Your task to perform on an android device: toggle pop-ups in chrome Image 0: 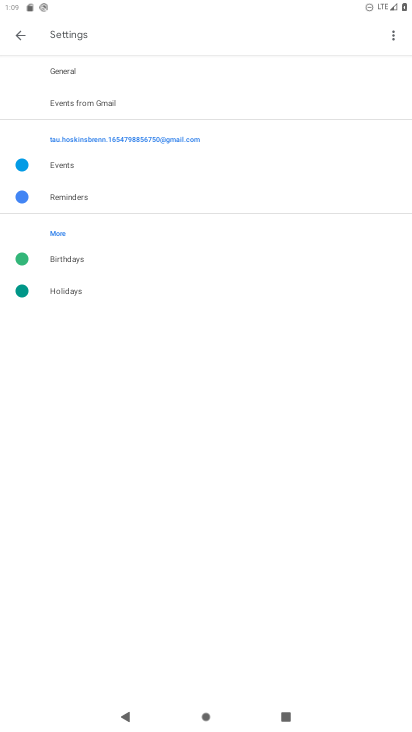
Step 0: press home button
Your task to perform on an android device: toggle pop-ups in chrome Image 1: 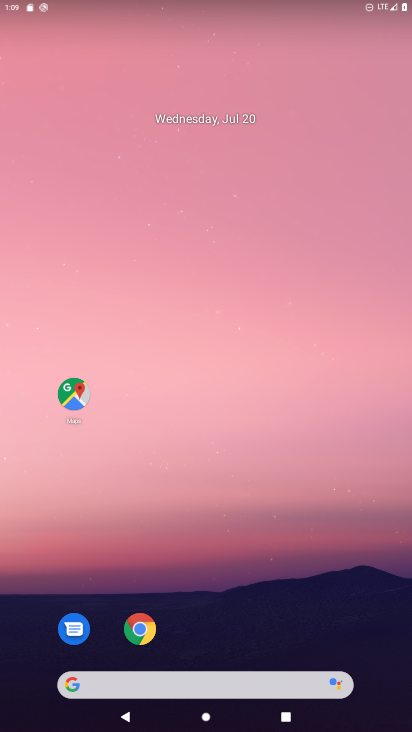
Step 1: click (132, 632)
Your task to perform on an android device: toggle pop-ups in chrome Image 2: 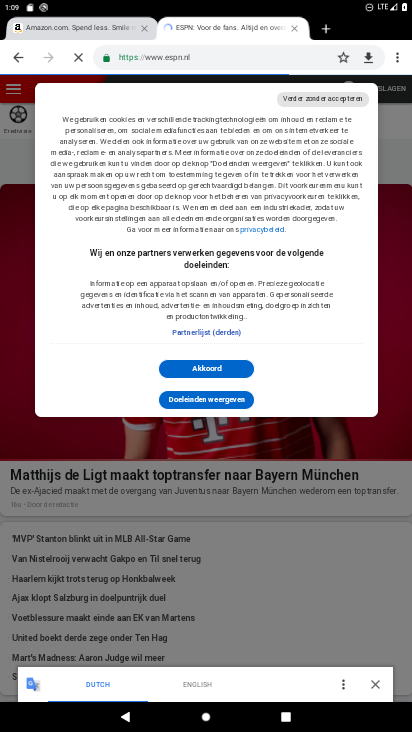
Step 2: click (396, 58)
Your task to perform on an android device: toggle pop-ups in chrome Image 3: 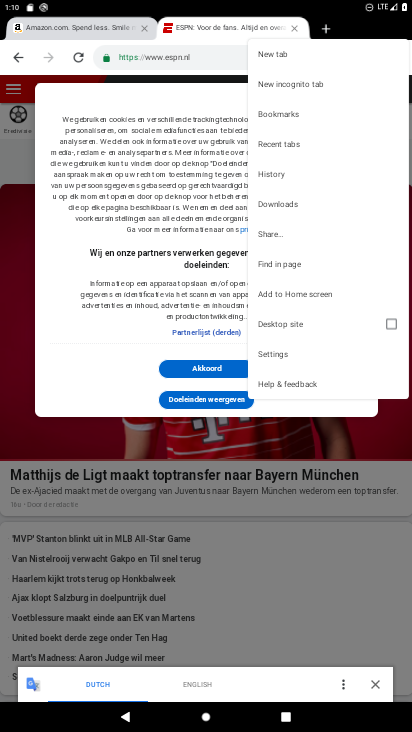
Step 3: click (266, 354)
Your task to perform on an android device: toggle pop-ups in chrome Image 4: 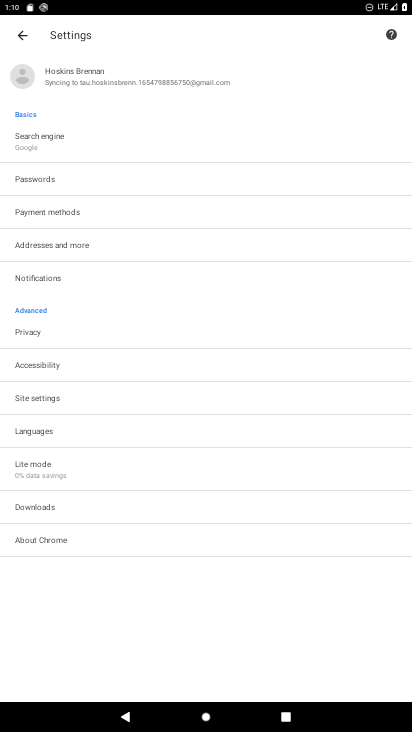
Step 4: click (51, 397)
Your task to perform on an android device: toggle pop-ups in chrome Image 5: 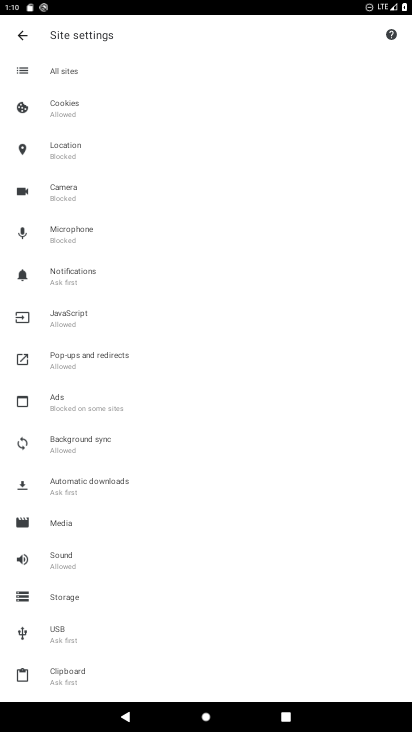
Step 5: click (68, 358)
Your task to perform on an android device: toggle pop-ups in chrome Image 6: 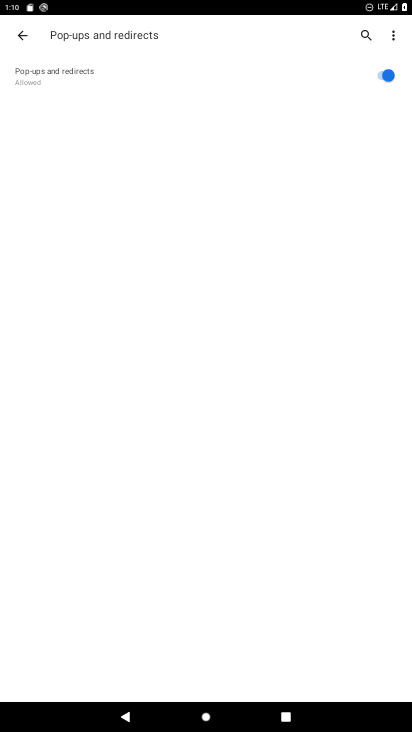
Step 6: click (378, 78)
Your task to perform on an android device: toggle pop-ups in chrome Image 7: 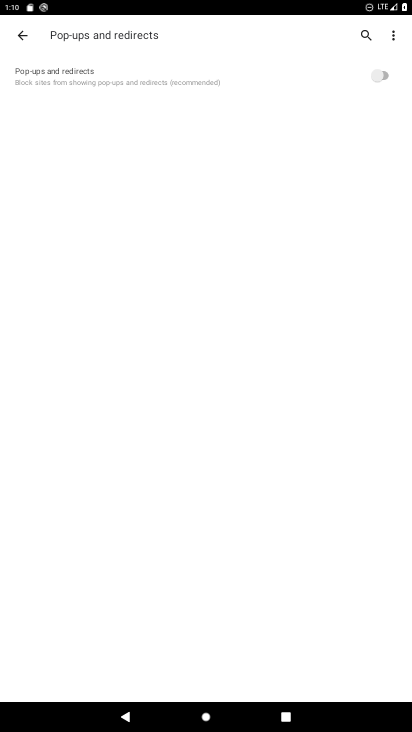
Step 7: task complete